Your task to perform on an android device: Open sound settings Image 0: 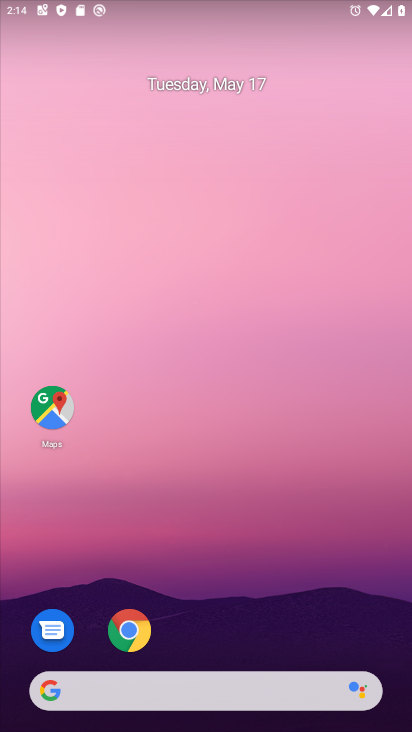
Step 0: drag from (340, 583) to (254, 162)
Your task to perform on an android device: Open sound settings Image 1: 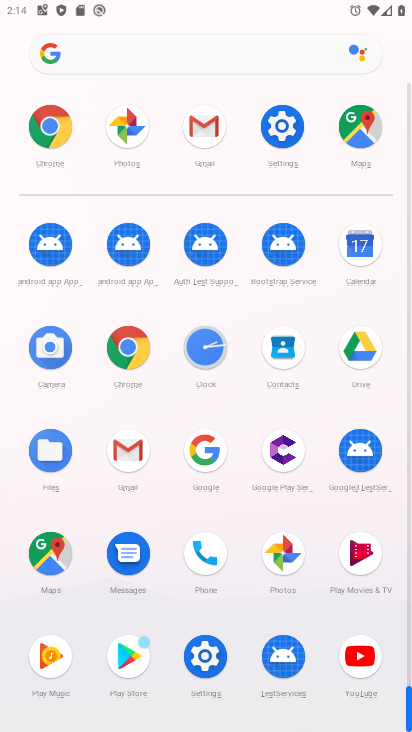
Step 1: click (279, 125)
Your task to perform on an android device: Open sound settings Image 2: 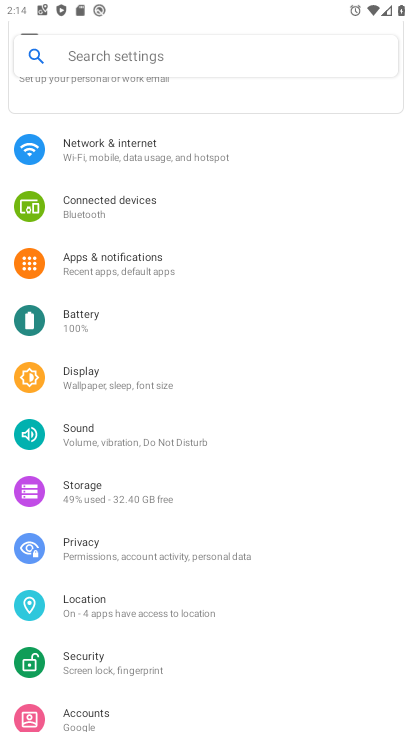
Step 2: click (136, 439)
Your task to perform on an android device: Open sound settings Image 3: 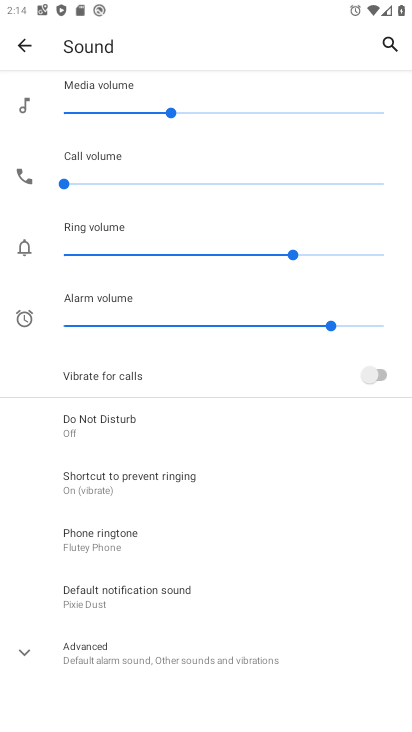
Step 3: task complete